Your task to perform on an android device: toggle javascript in the chrome app Image 0: 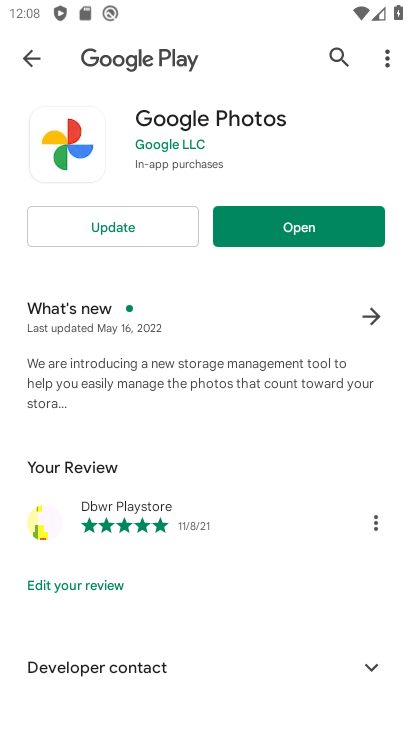
Step 0: press home button
Your task to perform on an android device: toggle javascript in the chrome app Image 1: 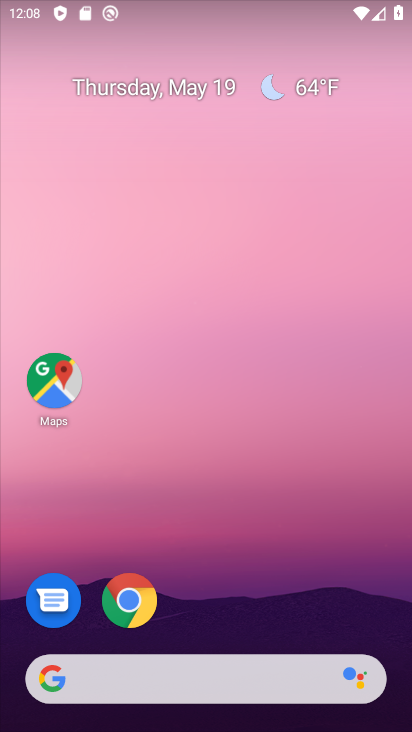
Step 1: drag from (199, 628) to (203, 46)
Your task to perform on an android device: toggle javascript in the chrome app Image 2: 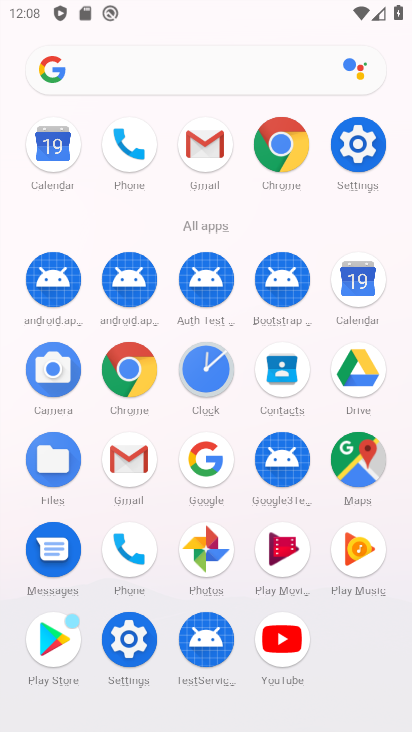
Step 2: click (143, 369)
Your task to perform on an android device: toggle javascript in the chrome app Image 3: 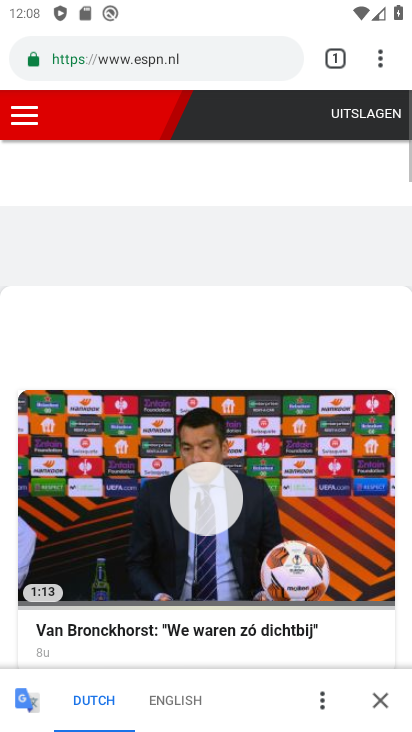
Step 3: click (381, 66)
Your task to perform on an android device: toggle javascript in the chrome app Image 4: 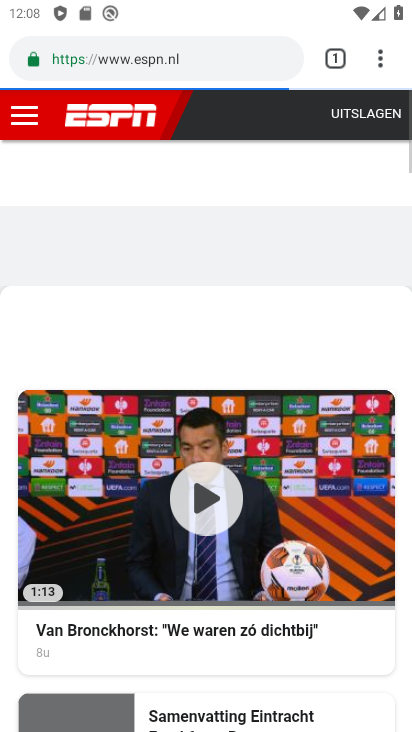
Step 4: click (380, 58)
Your task to perform on an android device: toggle javascript in the chrome app Image 5: 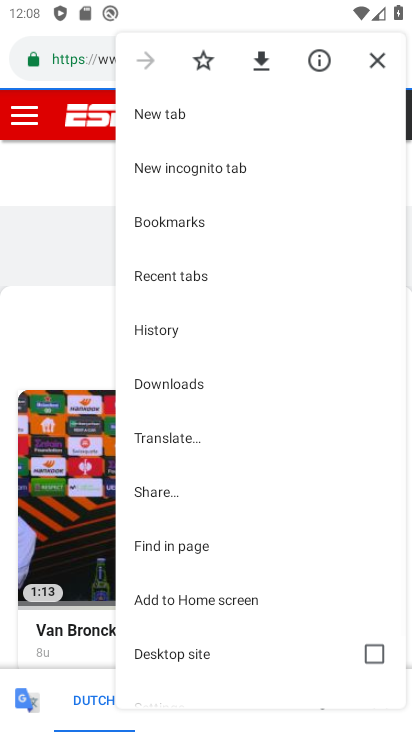
Step 5: drag from (276, 589) to (239, 149)
Your task to perform on an android device: toggle javascript in the chrome app Image 6: 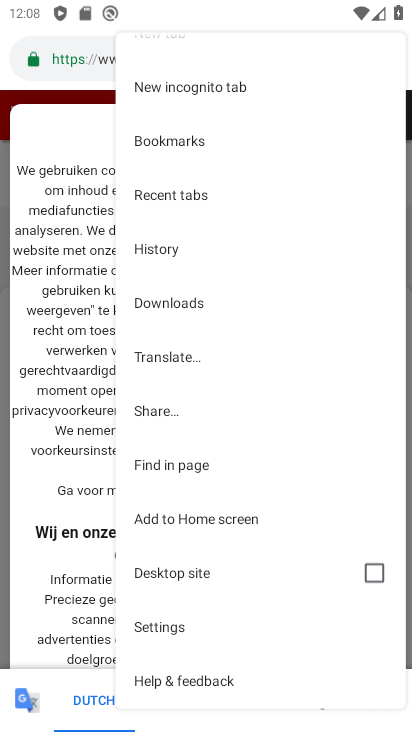
Step 6: click (194, 621)
Your task to perform on an android device: toggle javascript in the chrome app Image 7: 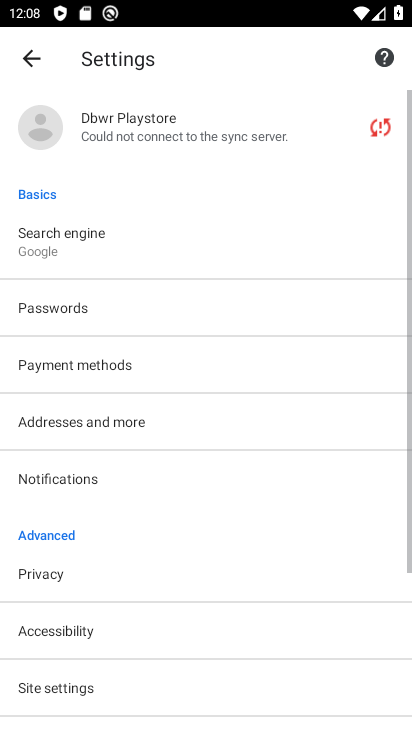
Step 7: drag from (176, 554) to (162, 194)
Your task to perform on an android device: toggle javascript in the chrome app Image 8: 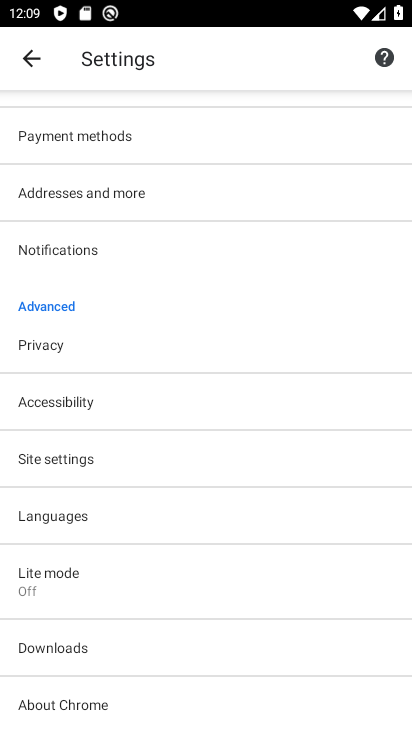
Step 8: click (83, 468)
Your task to perform on an android device: toggle javascript in the chrome app Image 9: 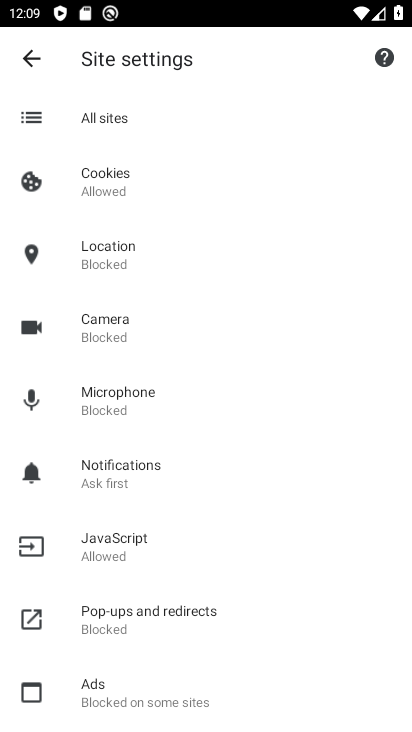
Step 9: click (138, 538)
Your task to perform on an android device: toggle javascript in the chrome app Image 10: 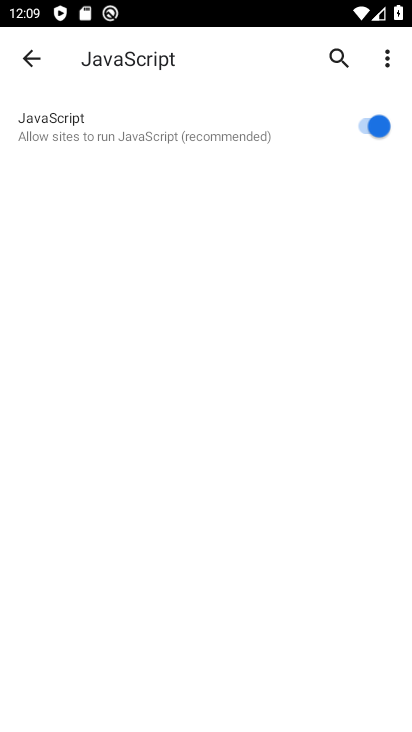
Step 10: click (368, 119)
Your task to perform on an android device: toggle javascript in the chrome app Image 11: 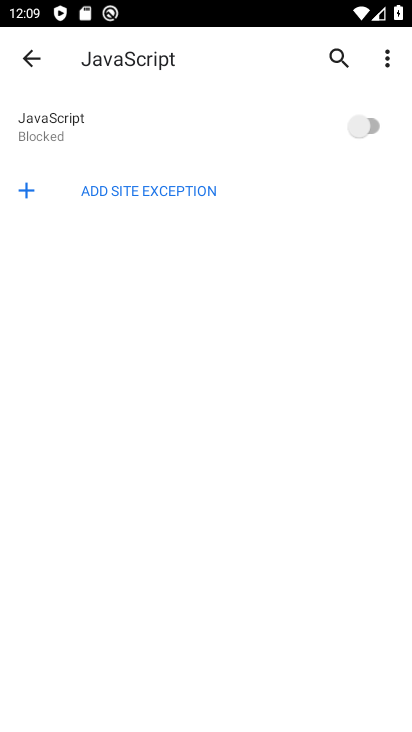
Step 11: task complete